Your task to perform on an android device: set default search engine in the chrome app Image 0: 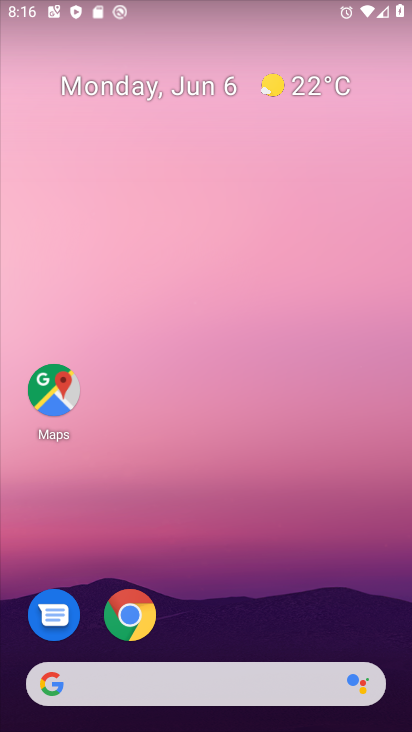
Step 0: click (132, 615)
Your task to perform on an android device: set default search engine in the chrome app Image 1: 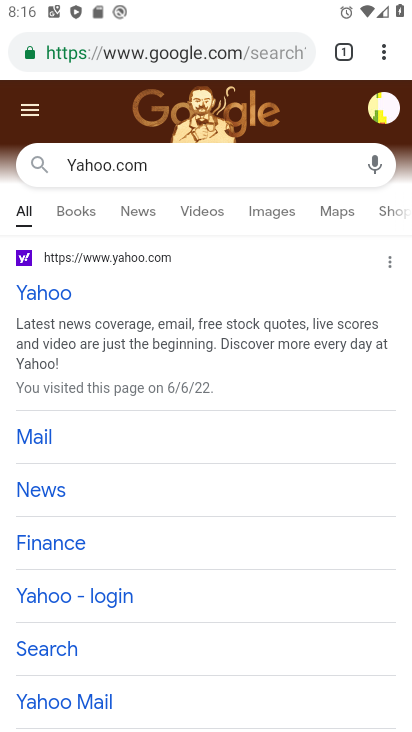
Step 1: click (380, 55)
Your task to perform on an android device: set default search engine in the chrome app Image 2: 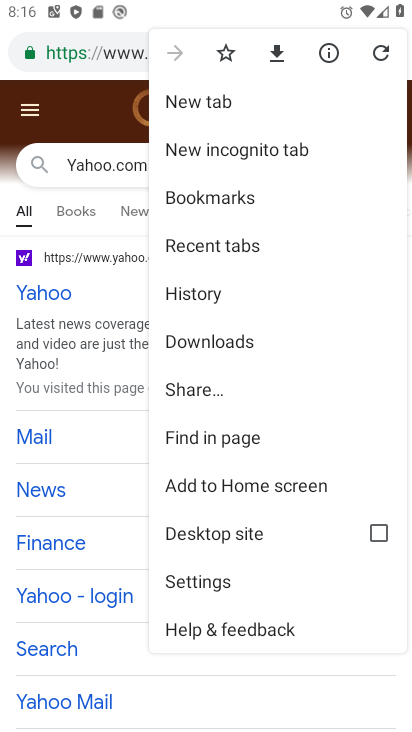
Step 2: click (199, 584)
Your task to perform on an android device: set default search engine in the chrome app Image 3: 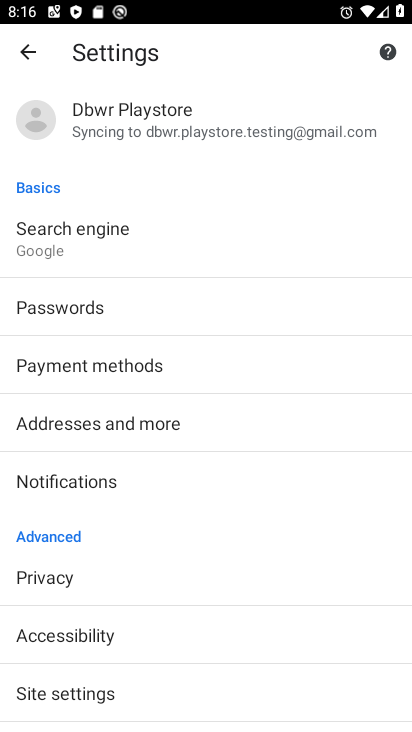
Step 3: click (78, 225)
Your task to perform on an android device: set default search engine in the chrome app Image 4: 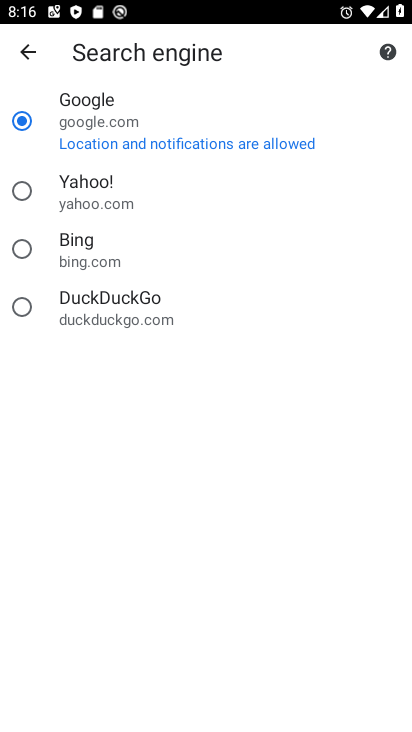
Step 4: task complete